Your task to perform on an android device: add a contact in the contacts app Image 0: 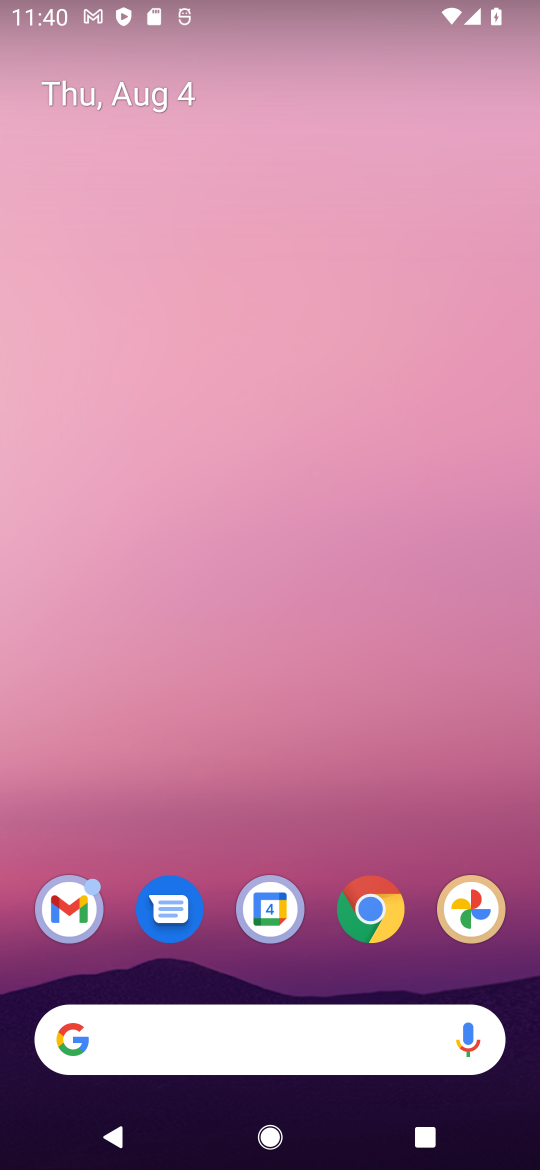
Step 0: drag from (334, 1097) to (334, 112)
Your task to perform on an android device: add a contact in the contacts app Image 1: 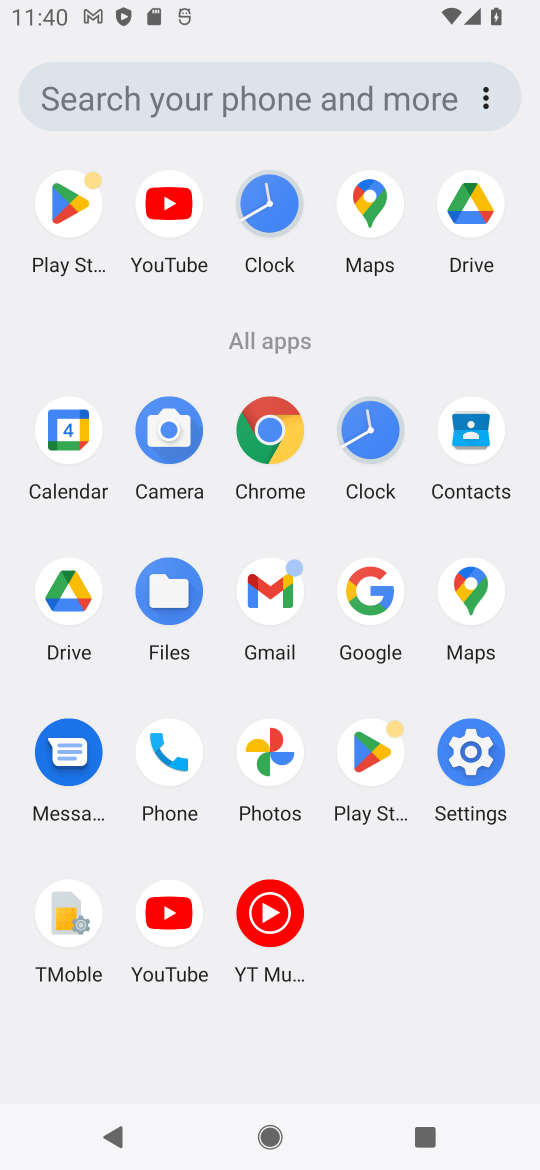
Step 1: click (475, 463)
Your task to perform on an android device: add a contact in the contacts app Image 2: 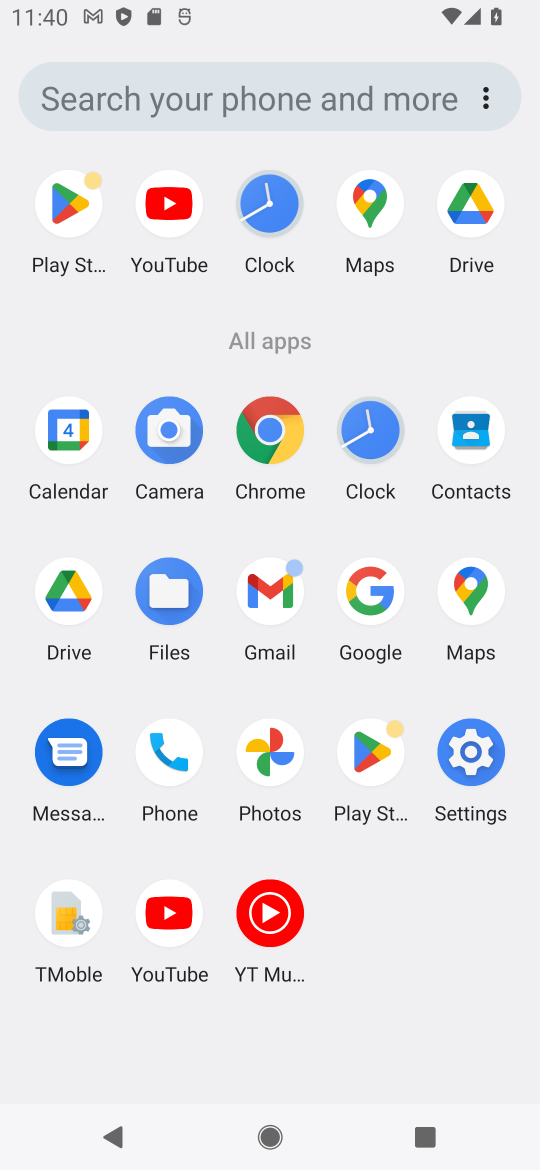
Step 2: click (475, 463)
Your task to perform on an android device: add a contact in the contacts app Image 3: 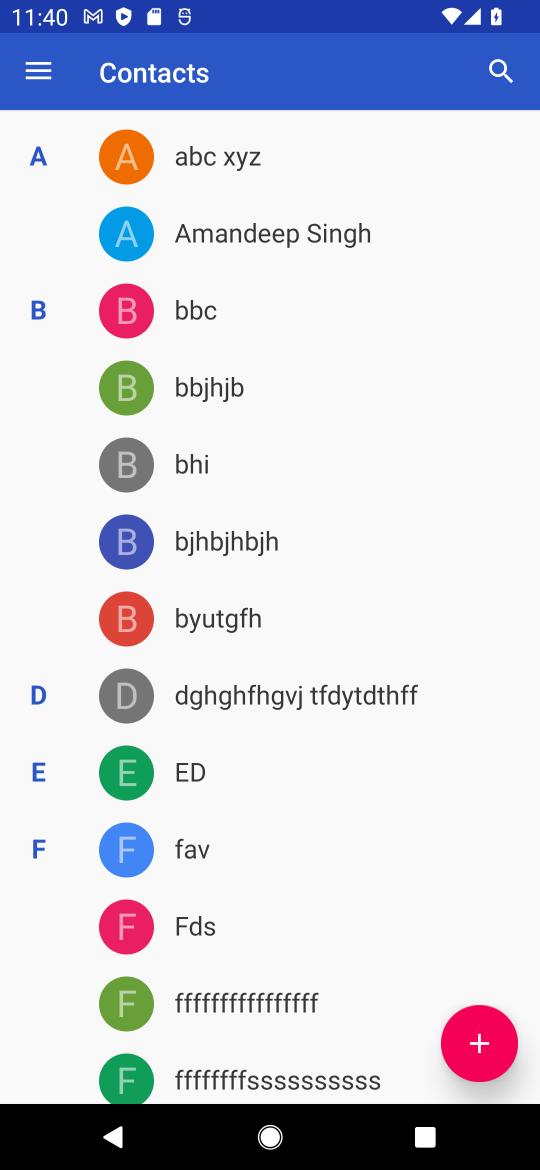
Step 3: click (488, 1027)
Your task to perform on an android device: add a contact in the contacts app Image 4: 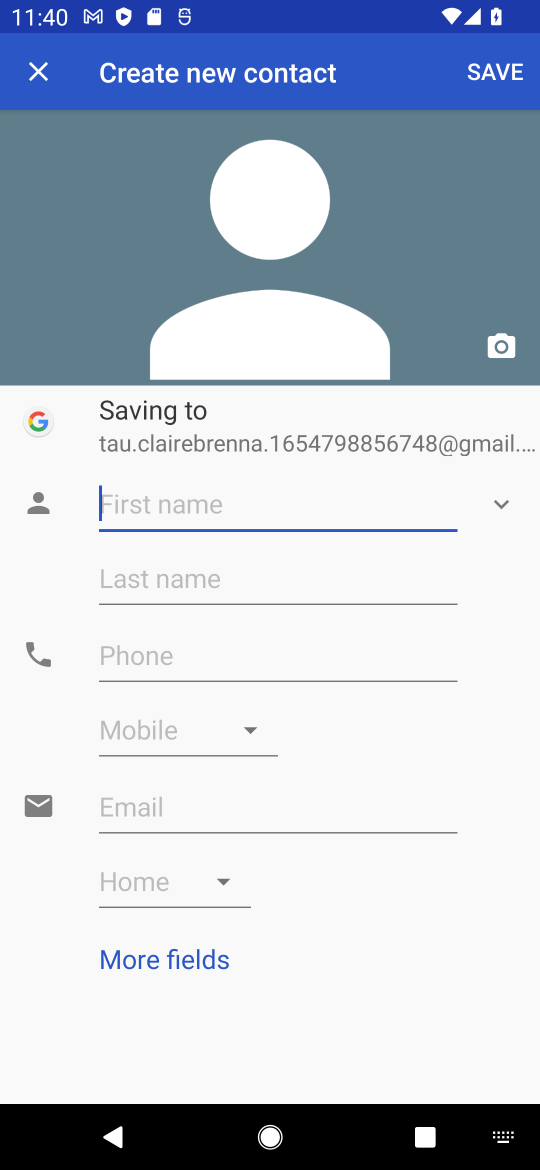
Step 4: type "tydfh"
Your task to perform on an android device: add a contact in the contacts app Image 5: 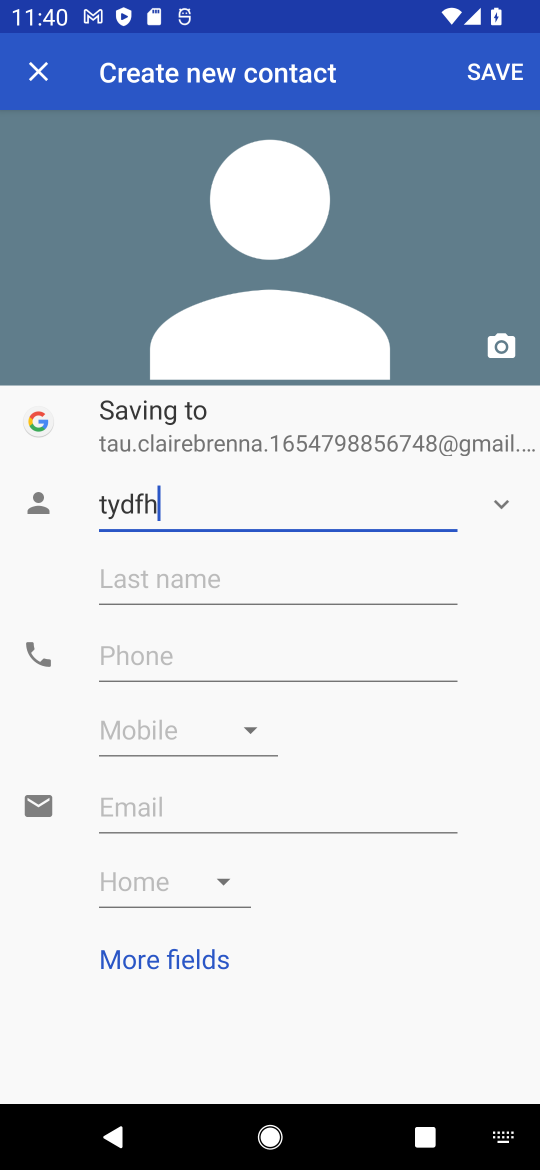
Step 5: click (242, 642)
Your task to perform on an android device: add a contact in the contacts app Image 6: 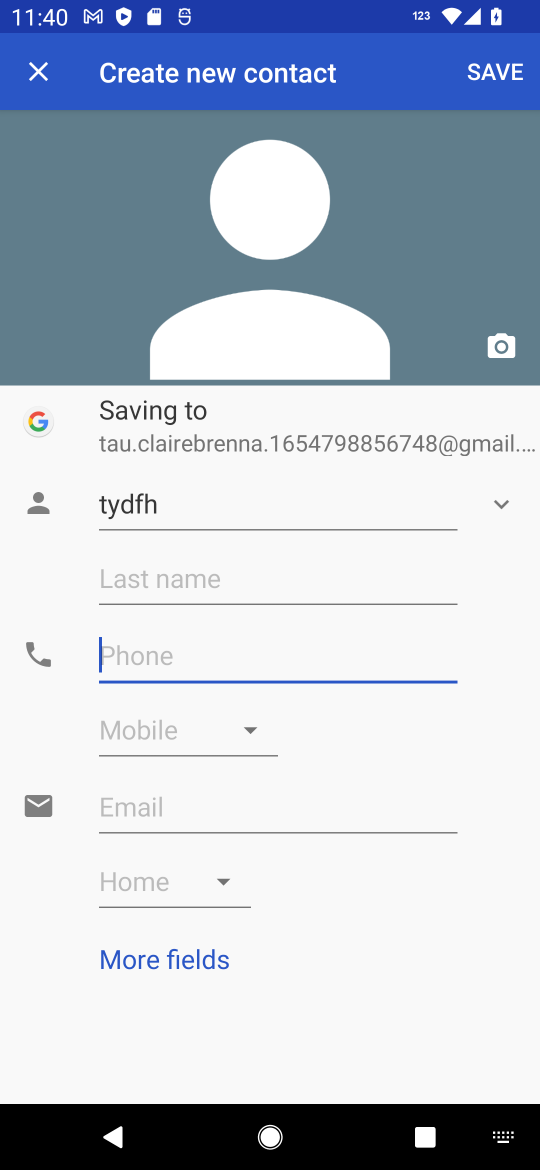
Step 6: type "76678"
Your task to perform on an android device: add a contact in the contacts app Image 7: 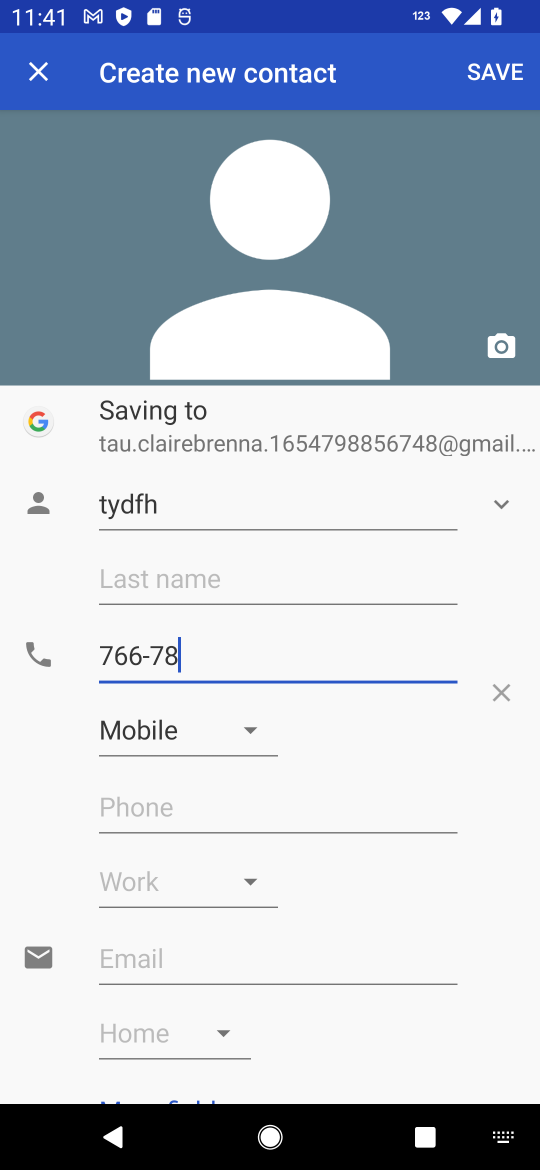
Step 7: click (504, 73)
Your task to perform on an android device: add a contact in the contacts app Image 8: 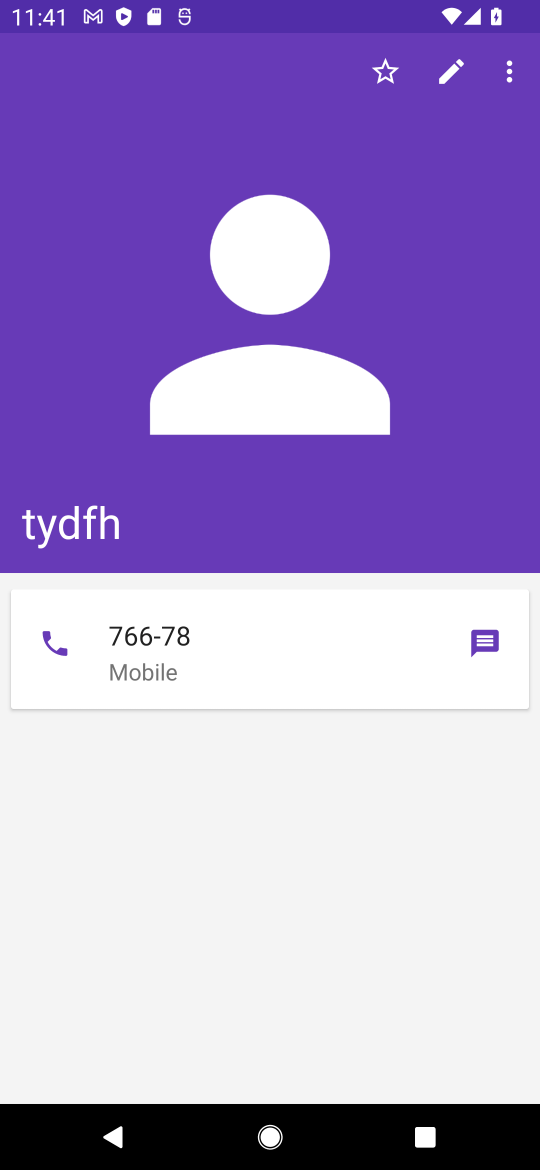
Step 8: task complete